Your task to perform on an android device: change the clock display to analog Image 0: 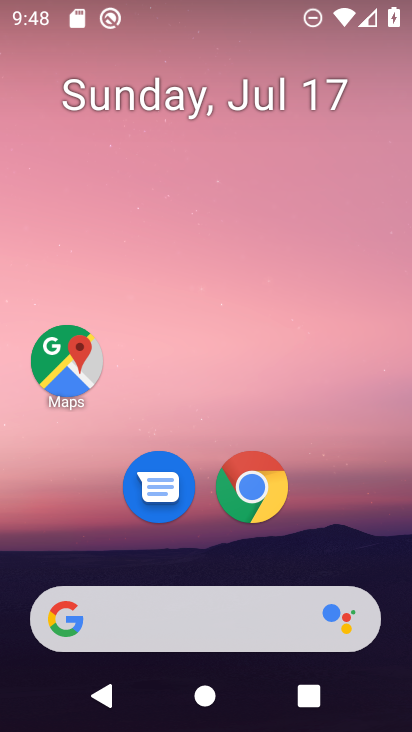
Step 0: press home button
Your task to perform on an android device: change the clock display to analog Image 1: 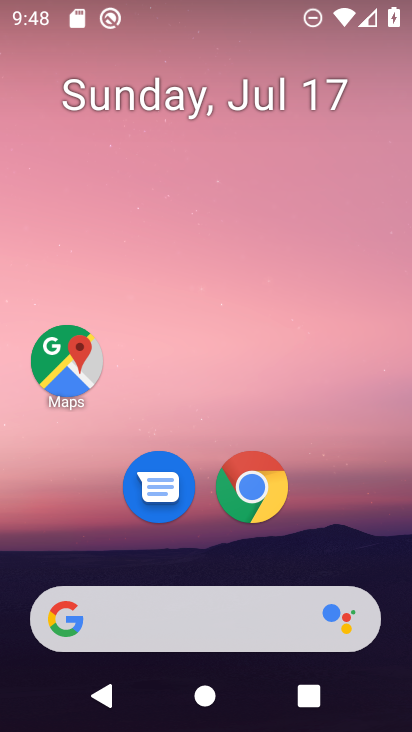
Step 1: drag from (311, 549) to (311, 41)
Your task to perform on an android device: change the clock display to analog Image 2: 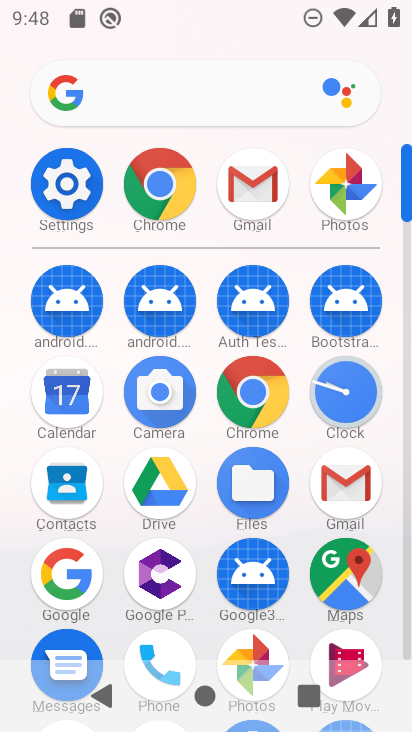
Step 2: click (346, 398)
Your task to perform on an android device: change the clock display to analog Image 3: 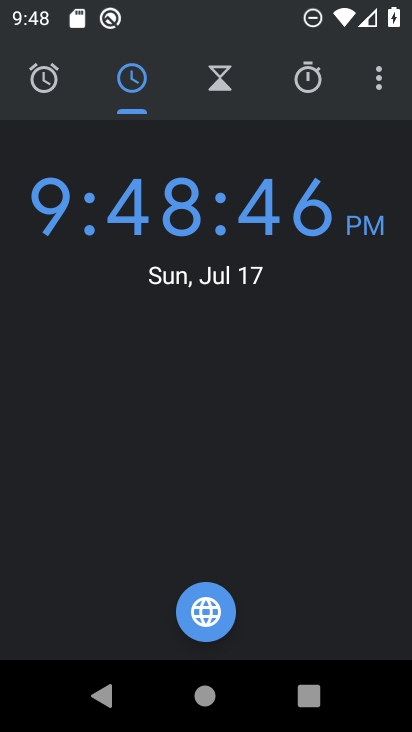
Step 3: click (382, 84)
Your task to perform on an android device: change the clock display to analog Image 4: 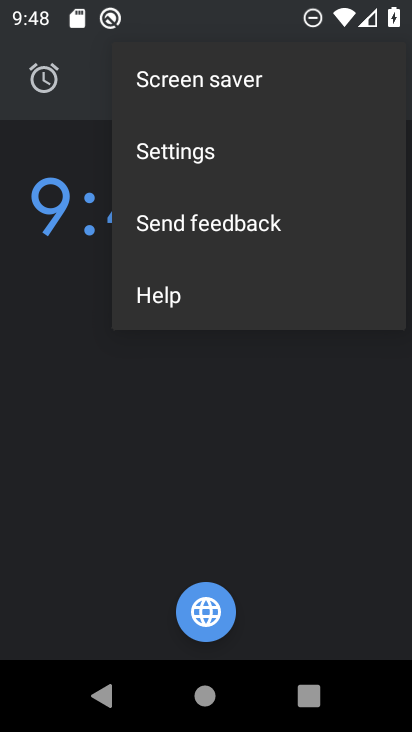
Step 4: click (196, 152)
Your task to perform on an android device: change the clock display to analog Image 5: 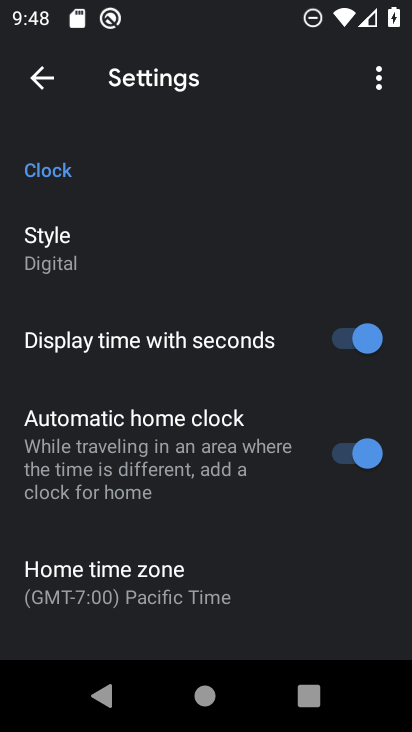
Step 5: click (48, 247)
Your task to perform on an android device: change the clock display to analog Image 6: 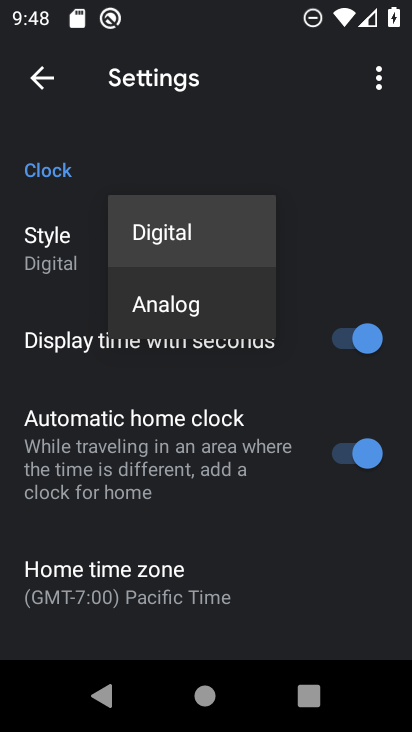
Step 6: click (200, 292)
Your task to perform on an android device: change the clock display to analog Image 7: 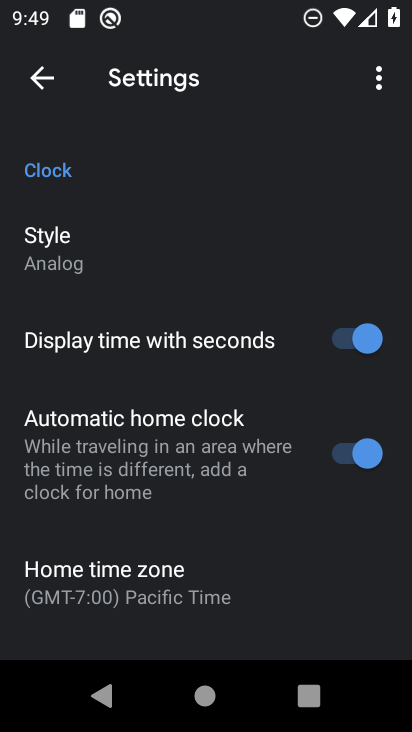
Step 7: task complete